Your task to perform on an android device: turn off picture-in-picture Image 0: 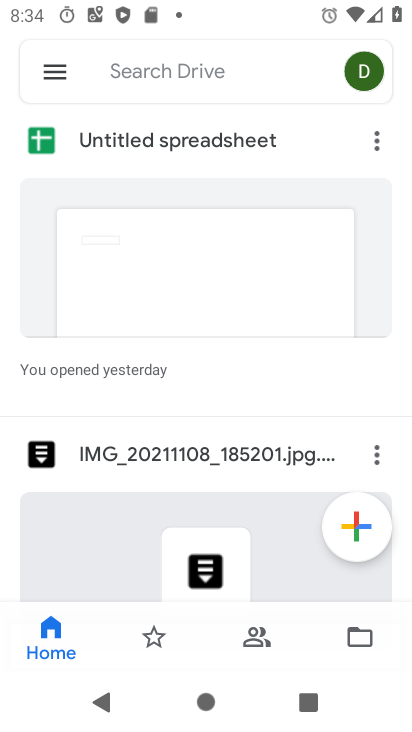
Step 0: press home button
Your task to perform on an android device: turn off picture-in-picture Image 1: 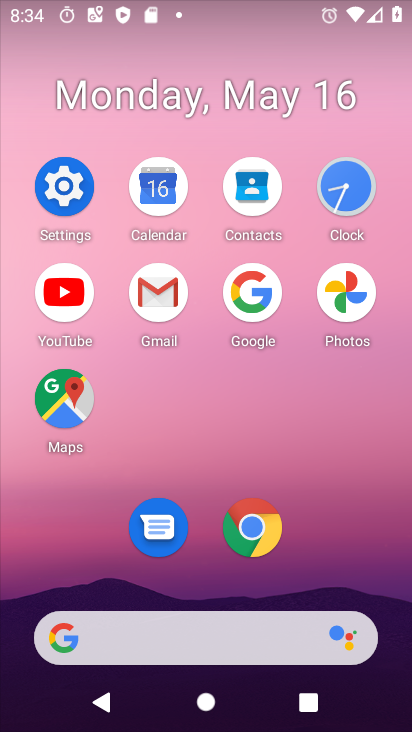
Step 1: click (255, 516)
Your task to perform on an android device: turn off picture-in-picture Image 2: 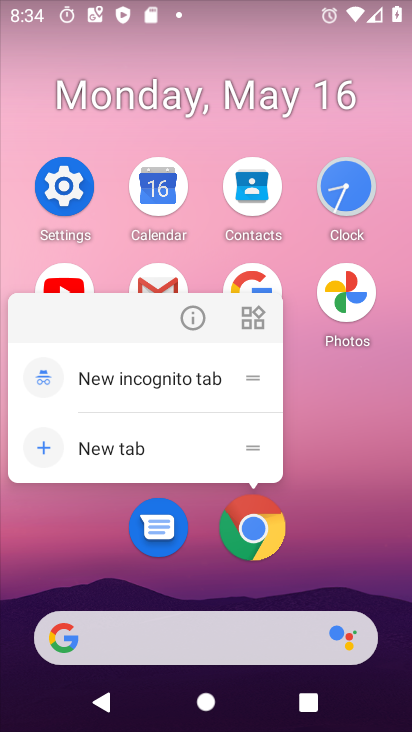
Step 2: click (188, 319)
Your task to perform on an android device: turn off picture-in-picture Image 3: 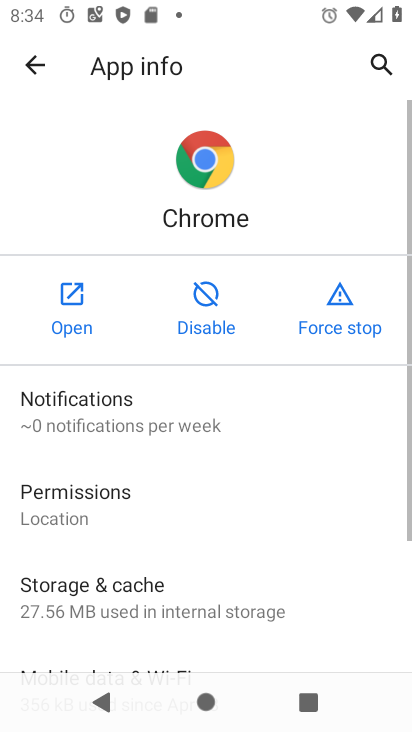
Step 3: drag from (243, 591) to (245, 190)
Your task to perform on an android device: turn off picture-in-picture Image 4: 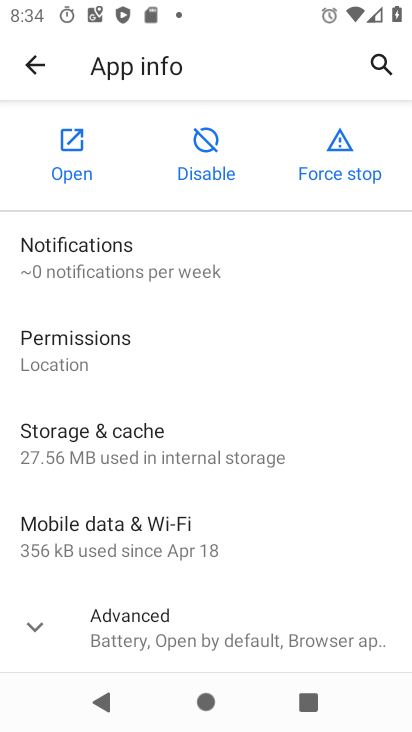
Step 4: click (225, 631)
Your task to perform on an android device: turn off picture-in-picture Image 5: 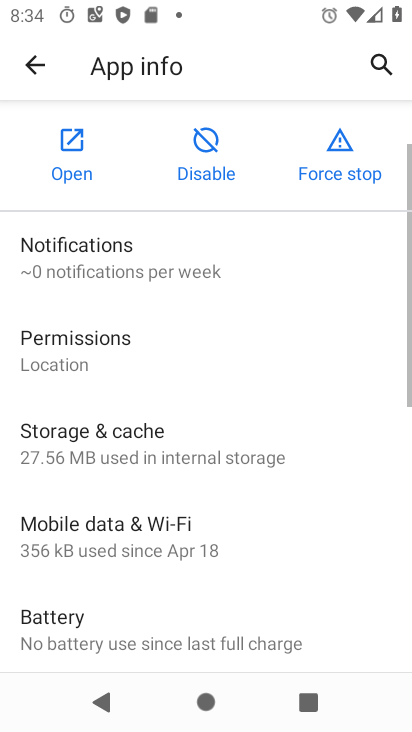
Step 5: drag from (225, 631) to (249, 168)
Your task to perform on an android device: turn off picture-in-picture Image 6: 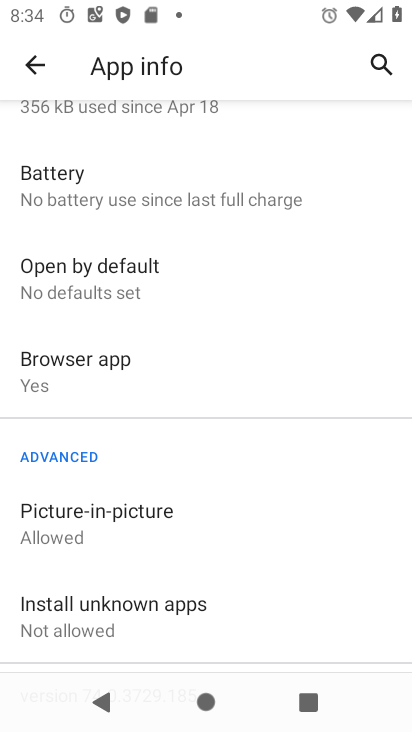
Step 6: click (177, 514)
Your task to perform on an android device: turn off picture-in-picture Image 7: 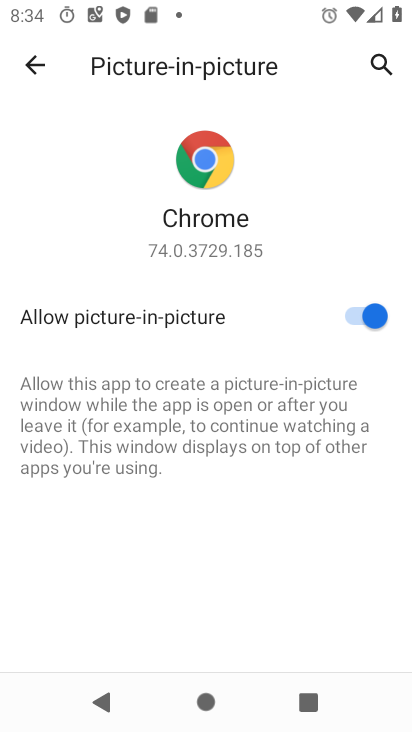
Step 7: click (373, 333)
Your task to perform on an android device: turn off picture-in-picture Image 8: 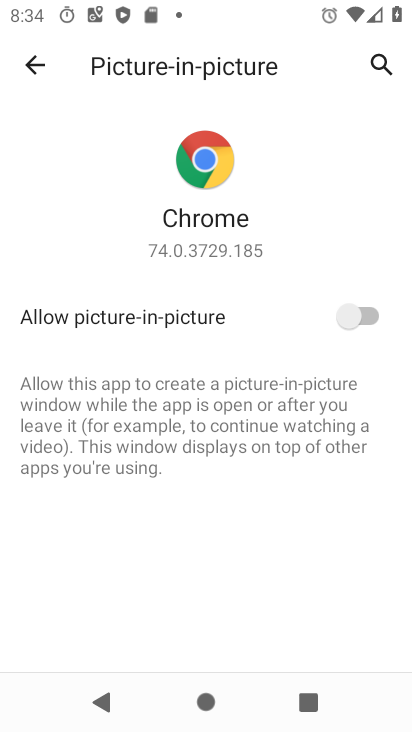
Step 8: task complete